Your task to perform on an android device: all mails in gmail Image 0: 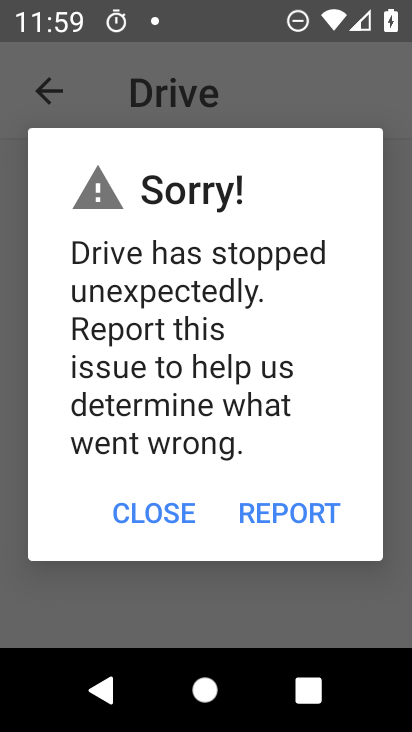
Step 0: press home button
Your task to perform on an android device: all mails in gmail Image 1: 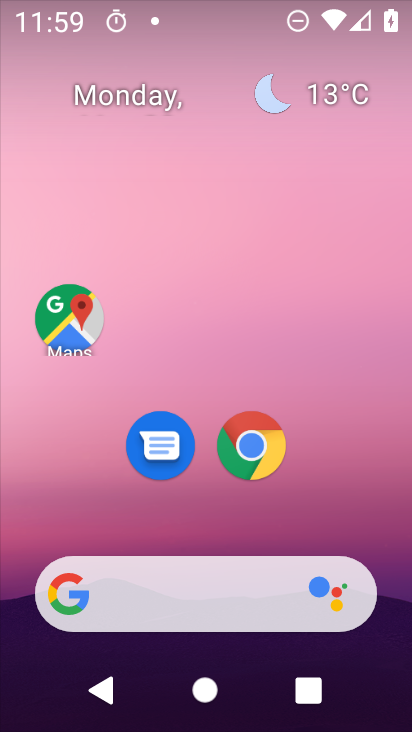
Step 1: drag from (177, 515) to (255, 76)
Your task to perform on an android device: all mails in gmail Image 2: 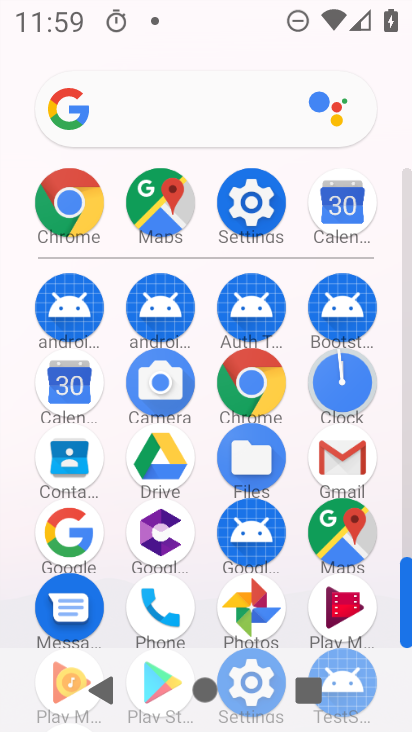
Step 2: click (331, 459)
Your task to perform on an android device: all mails in gmail Image 3: 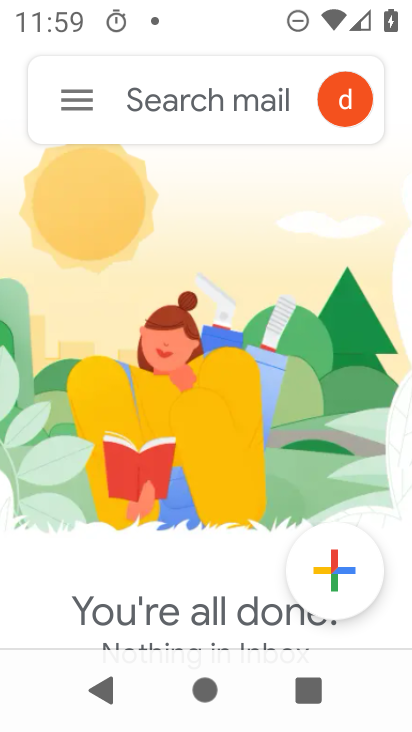
Step 3: click (82, 100)
Your task to perform on an android device: all mails in gmail Image 4: 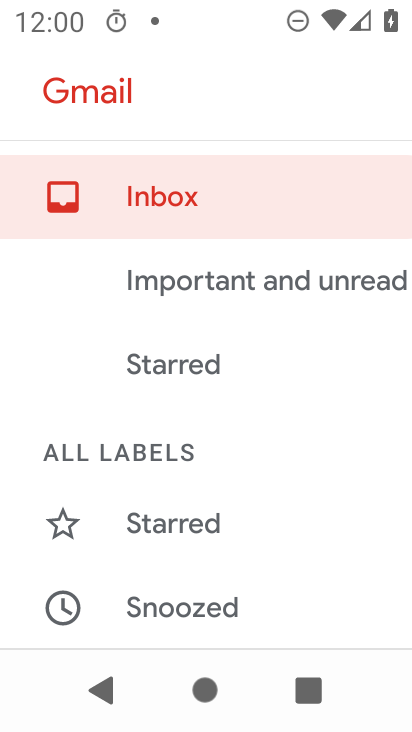
Step 4: drag from (188, 542) to (268, 65)
Your task to perform on an android device: all mails in gmail Image 5: 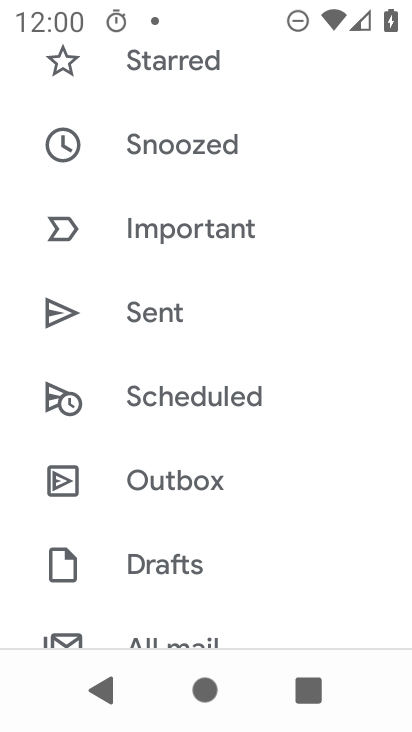
Step 5: drag from (143, 621) to (187, 255)
Your task to perform on an android device: all mails in gmail Image 6: 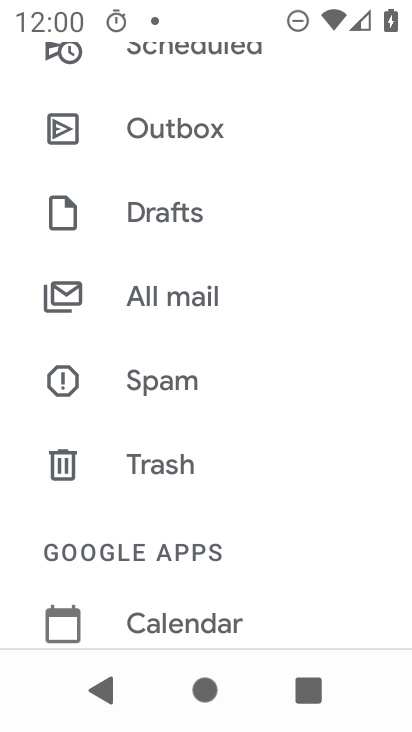
Step 6: click (160, 296)
Your task to perform on an android device: all mails in gmail Image 7: 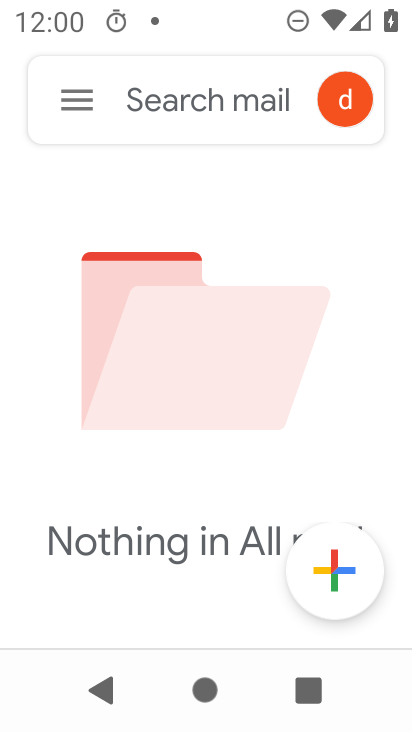
Step 7: task complete